Your task to perform on an android device: check google app version Image 0: 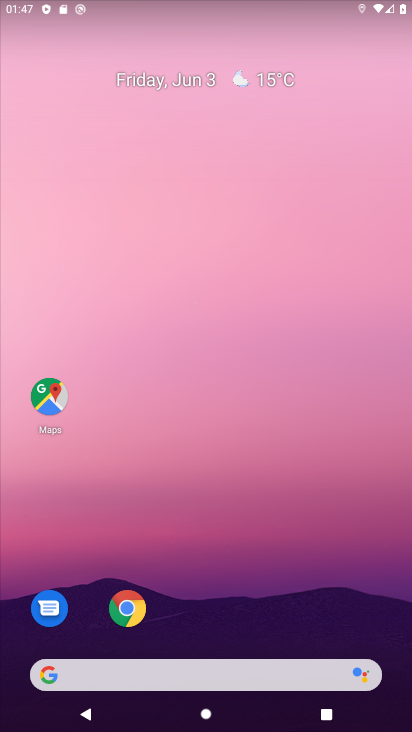
Step 0: drag from (245, 563) to (273, 137)
Your task to perform on an android device: check google app version Image 1: 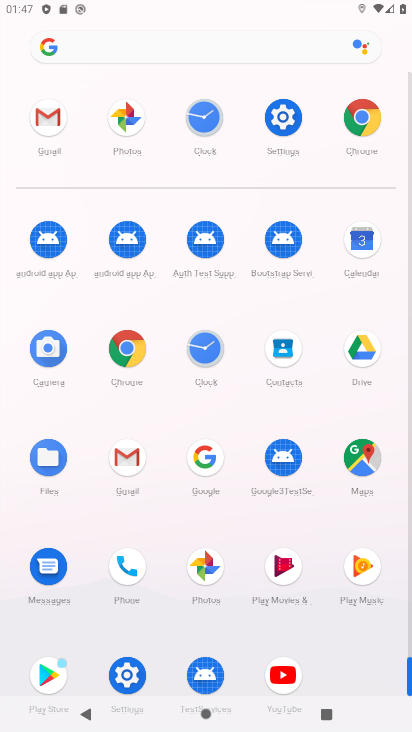
Step 1: click (207, 466)
Your task to perform on an android device: check google app version Image 2: 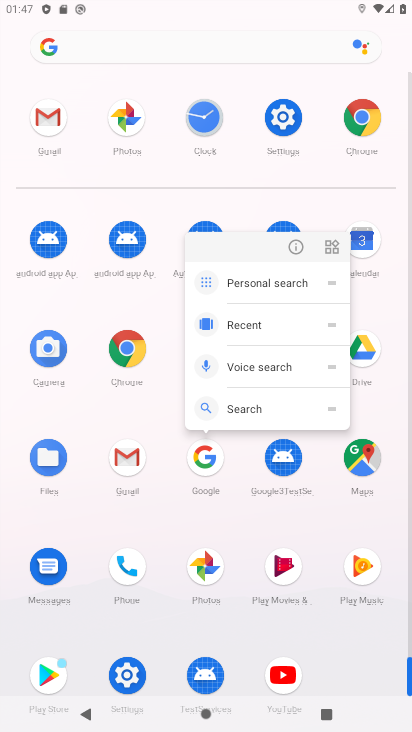
Step 2: click (301, 251)
Your task to perform on an android device: check google app version Image 3: 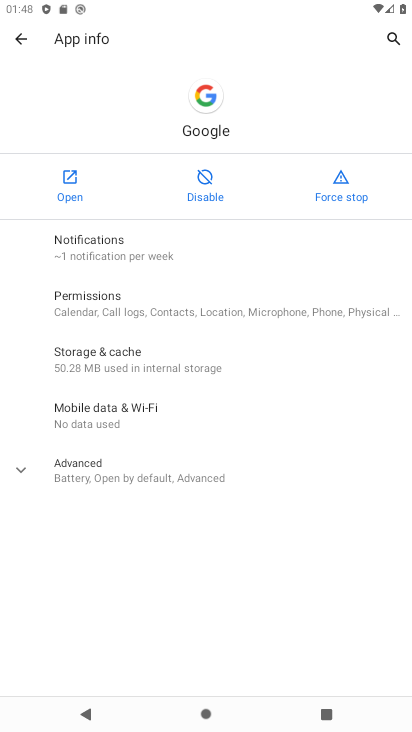
Step 3: click (119, 470)
Your task to perform on an android device: check google app version Image 4: 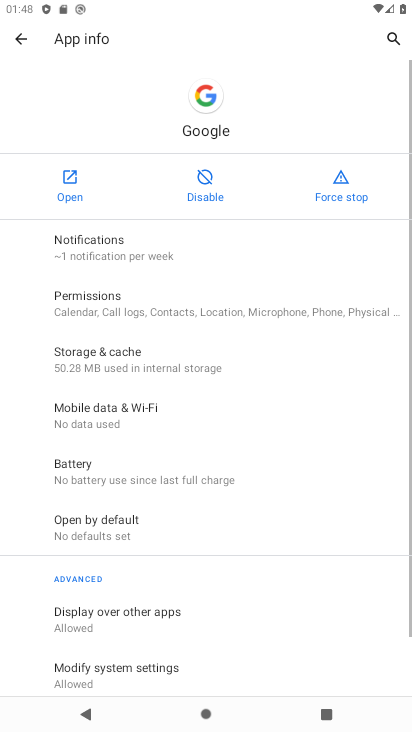
Step 4: task complete